Your task to perform on an android device: See recent photos Image 0: 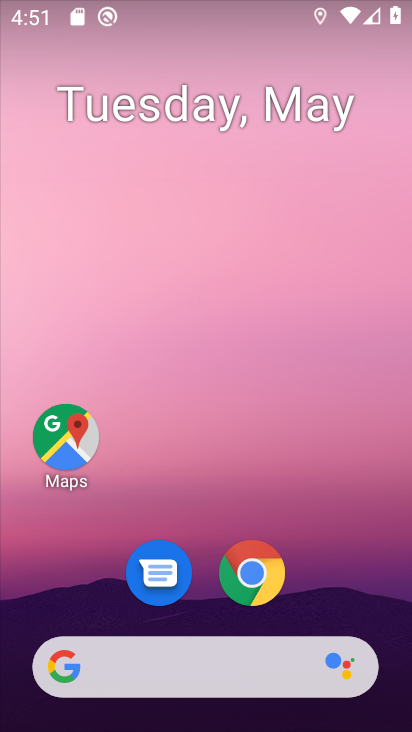
Step 0: drag from (197, 577) to (235, 56)
Your task to perform on an android device: See recent photos Image 1: 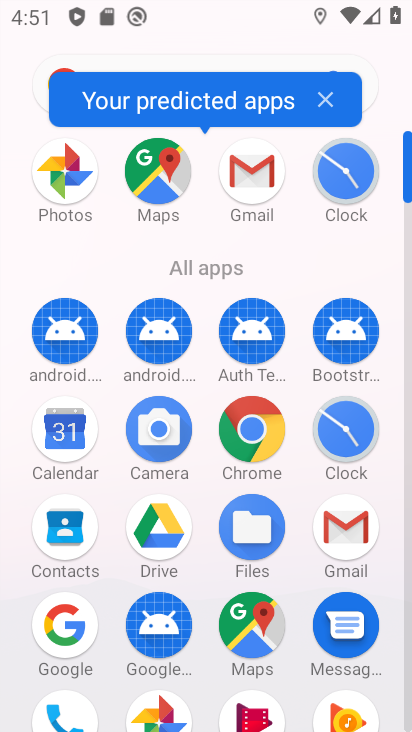
Step 1: click (153, 701)
Your task to perform on an android device: See recent photos Image 2: 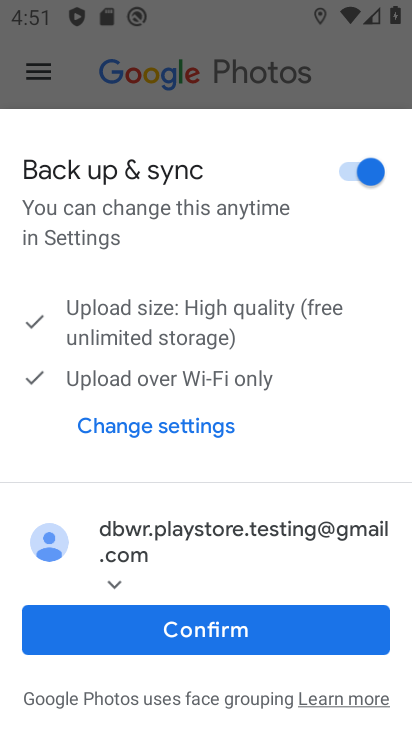
Step 2: click (174, 642)
Your task to perform on an android device: See recent photos Image 3: 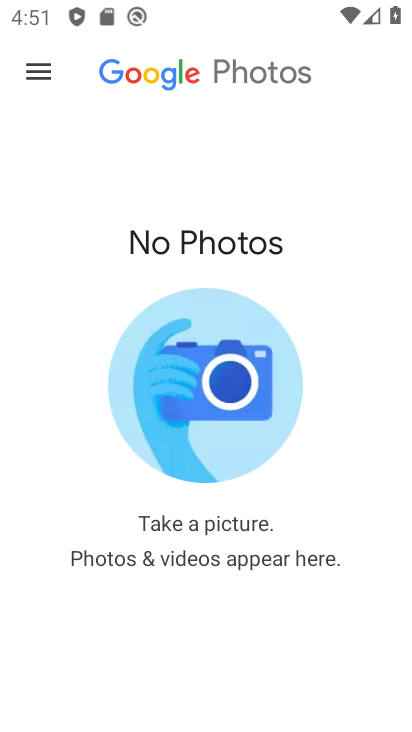
Step 3: task complete